Your task to perform on an android device: manage bookmarks in the chrome app Image 0: 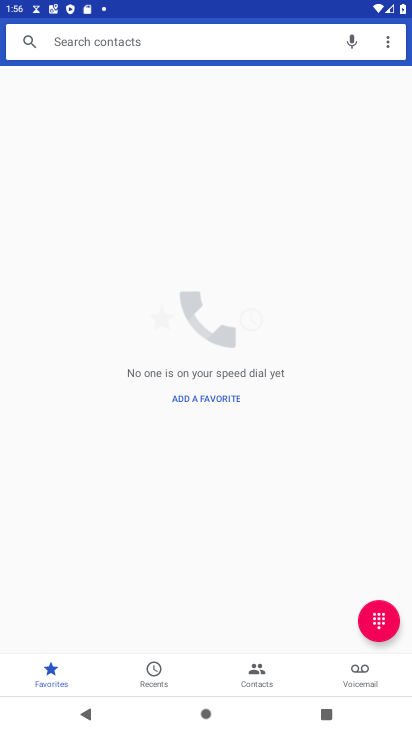
Step 0: press home button
Your task to perform on an android device: manage bookmarks in the chrome app Image 1: 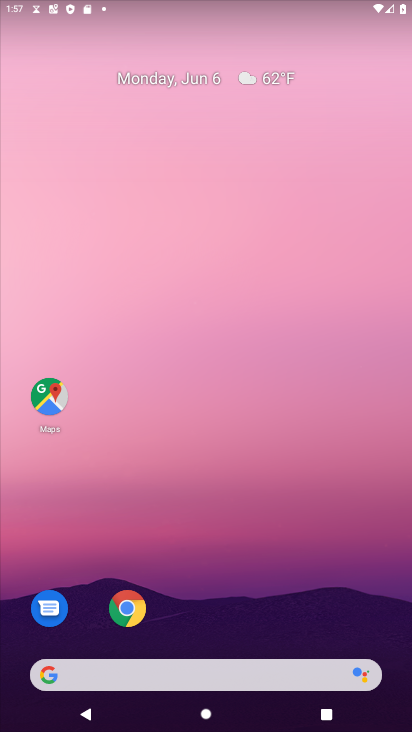
Step 1: drag from (288, 616) to (371, 41)
Your task to perform on an android device: manage bookmarks in the chrome app Image 2: 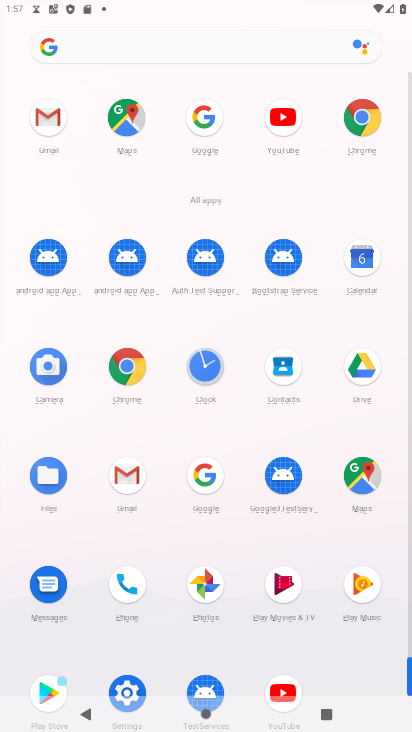
Step 2: click (353, 119)
Your task to perform on an android device: manage bookmarks in the chrome app Image 3: 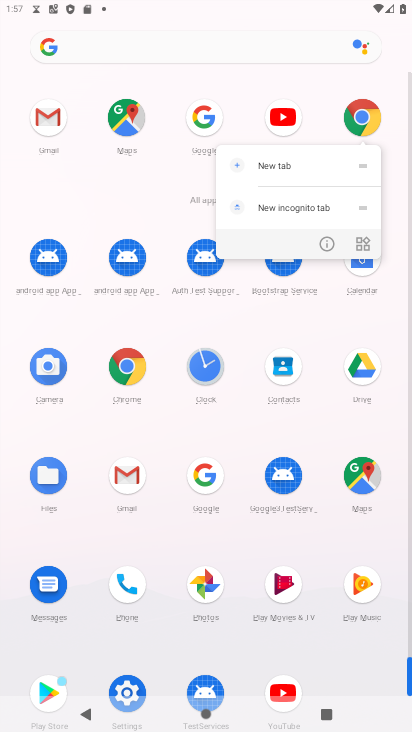
Step 3: click (353, 116)
Your task to perform on an android device: manage bookmarks in the chrome app Image 4: 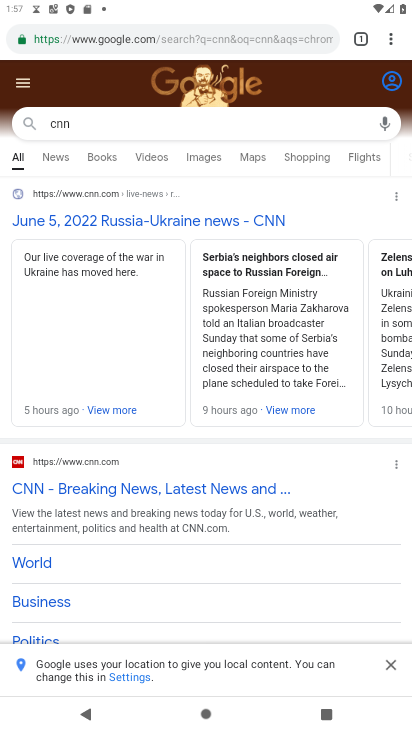
Step 4: drag from (392, 36) to (289, 158)
Your task to perform on an android device: manage bookmarks in the chrome app Image 5: 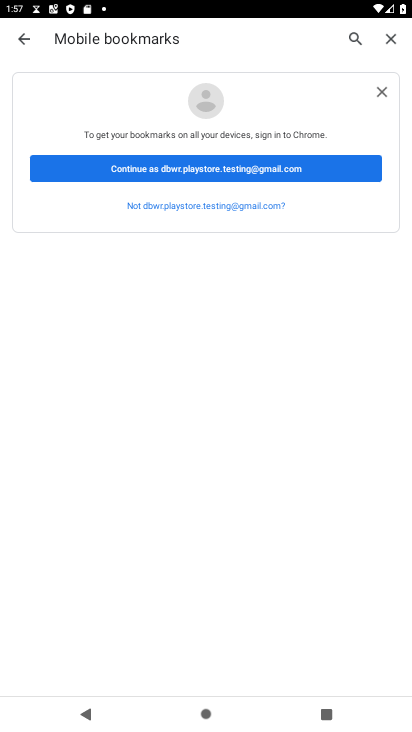
Step 5: click (260, 172)
Your task to perform on an android device: manage bookmarks in the chrome app Image 6: 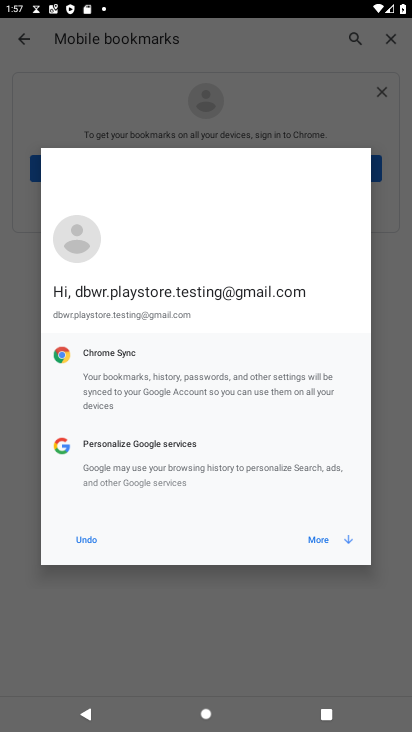
Step 6: click (310, 533)
Your task to perform on an android device: manage bookmarks in the chrome app Image 7: 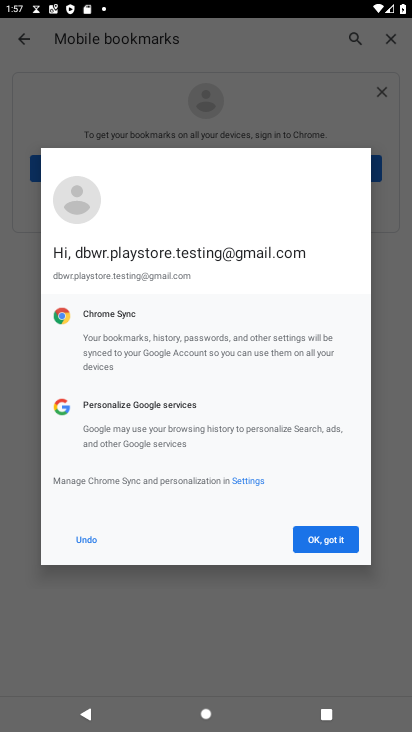
Step 7: click (312, 533)
Your task to perform on an android device: manage bookmarks in the chrome app Image 8: 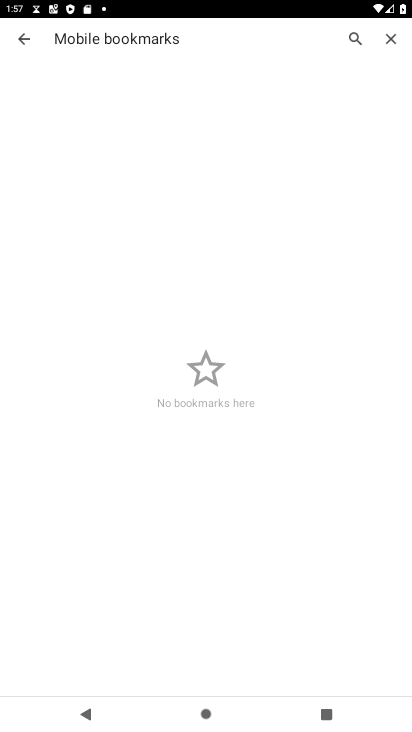
Step 8: task complete